Your task to perform on an android device: When is my next appointment? Image 0: 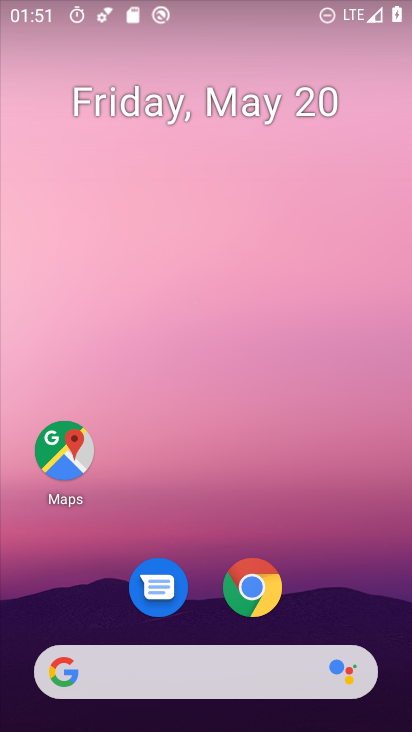
Step 0: drag from (376, 610) to (343, 148)
Your task to perform on an android device: When is my next appointment? Image 1: 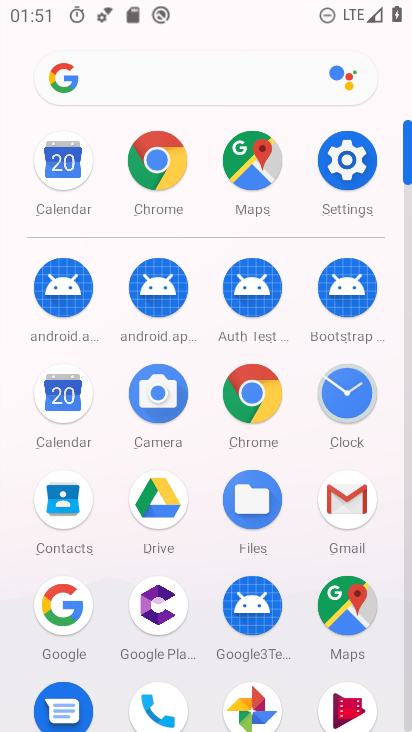
Step 1: click (66, 407)
Your task to perform on an android device: When is my next appointment? Image 2: 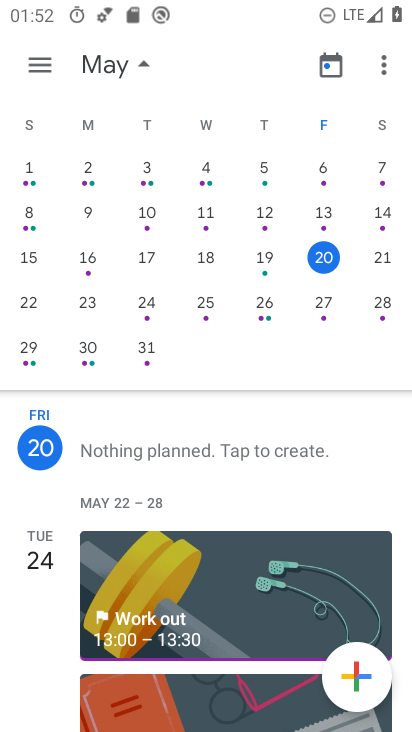
Step 2: click (195, 588)
Your task to perform on an android device: When is my next appointment? Image 3: 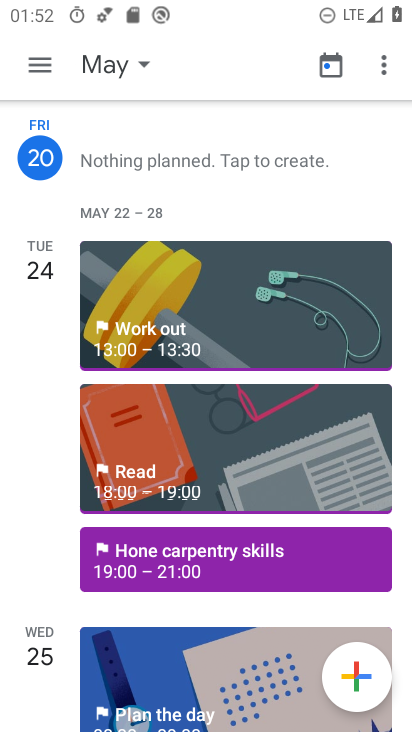
Step 3: click (247, 304)
Your task to perform on an android device: When is my next appointment? Image 4: 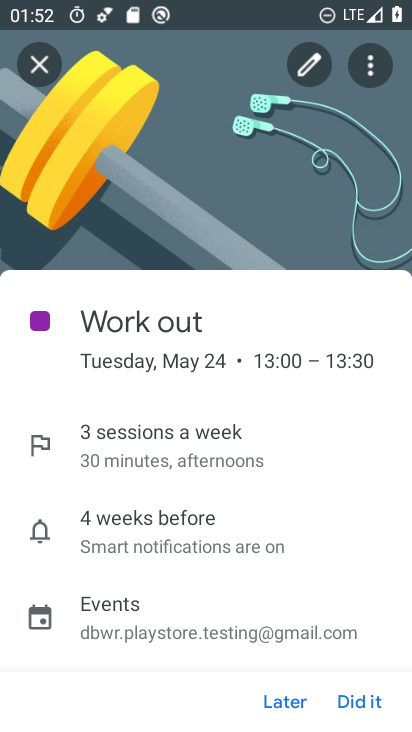
Step 4: task complete